Your task to perform on an android device: turn off improve location accuracy Image 0: 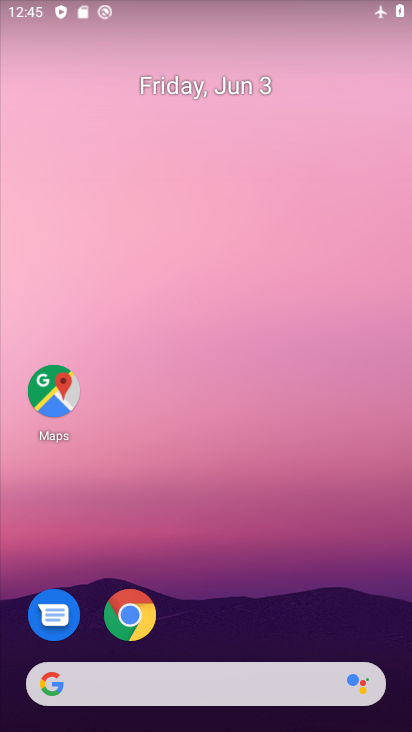
Step 0: drag from (237, 650) to (265, 54)
Your task to perform on an android device: turn off improve location accuracy Image 1: 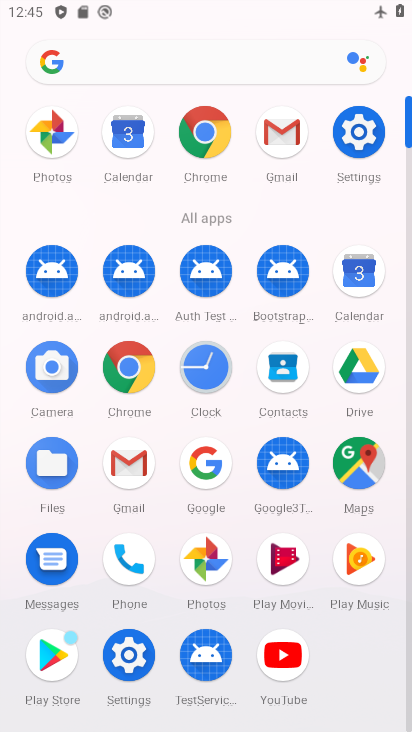
Step 1: click (134, 674)
Your task to perform on an android device: turn off improve location accuracy Image 2: 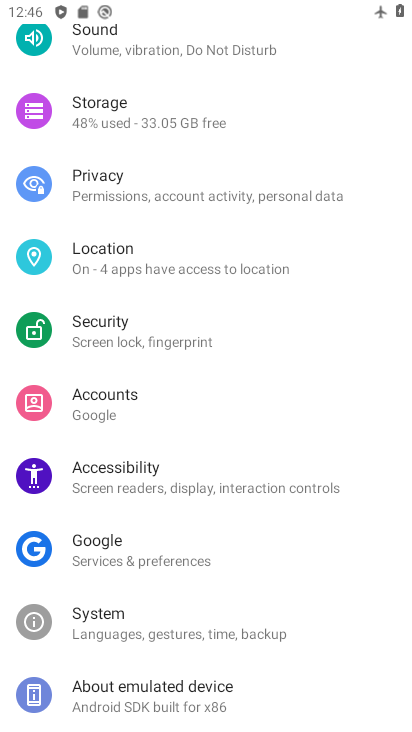
Step 2: click (111, 266)
Your task to perform on an android device: turn off improve location accuracy Image 3: 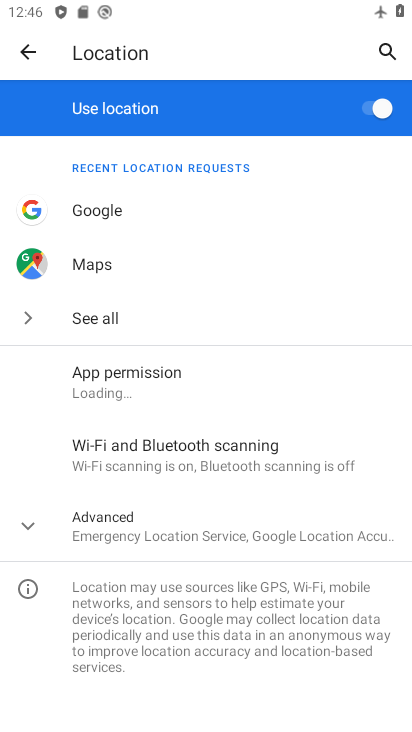
Step 3: click (128, 521)
Your task to perform on an android device: turn off improve location accuracy Image 4: 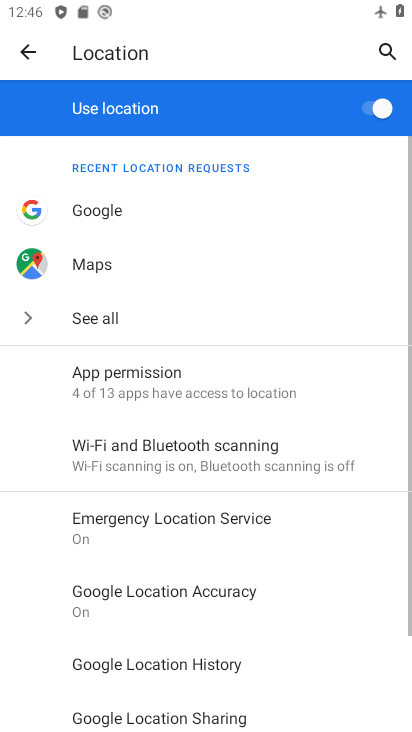
Step 4: click (209, 590)
Your task to perform on an android device: turn off improve location accuracy Image 5: 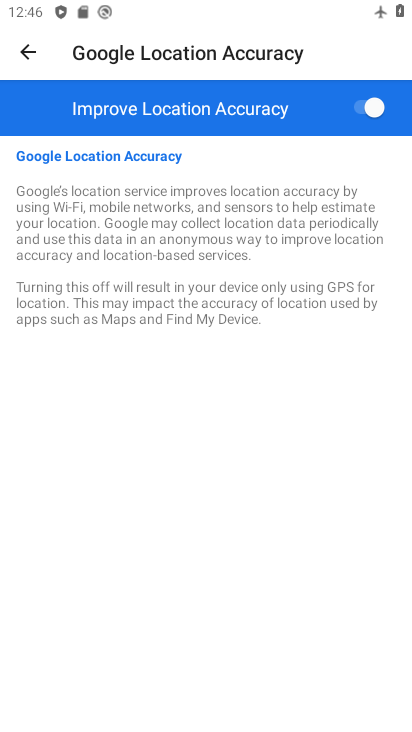
Step 5: click (343, 112)
Your task to perform on an android device: turn off improve location accuracy Image 6: 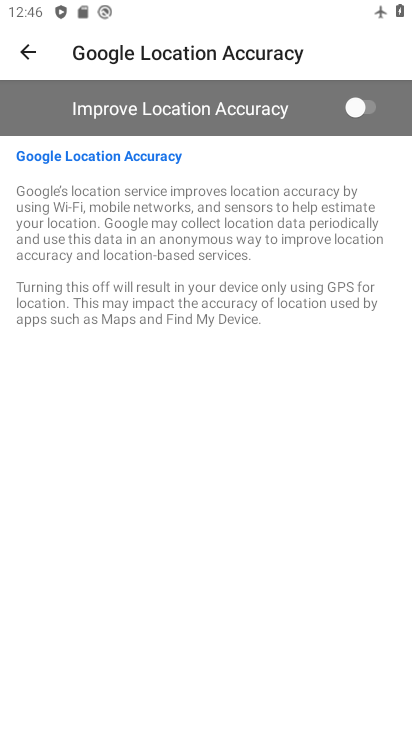
Step 6: task complete